Your task to perform on an android device: find which apps use the phone's location Image 0: 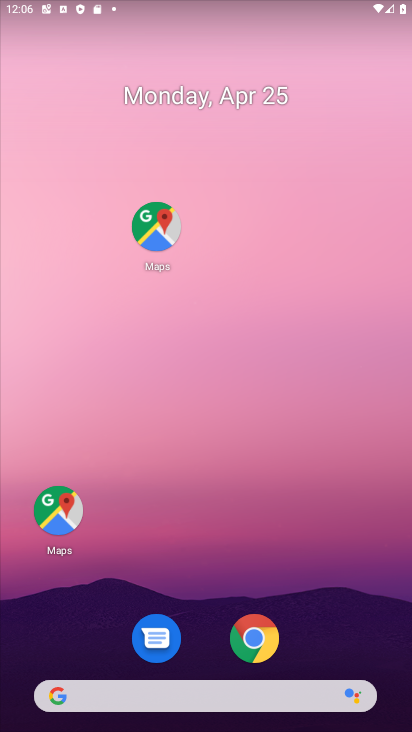
Step 0: drag from (174, 383) to (120, 2)
Your task to perform on an android device: find which apps use the phone's location Image 1: 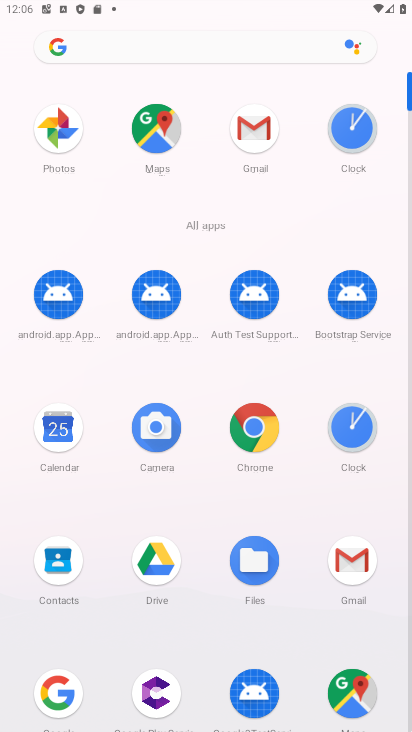
Step 1: drag from (282, 643) to (229, 106)
Your task to perform on an android device: find which apps use the phone's location Image 2: 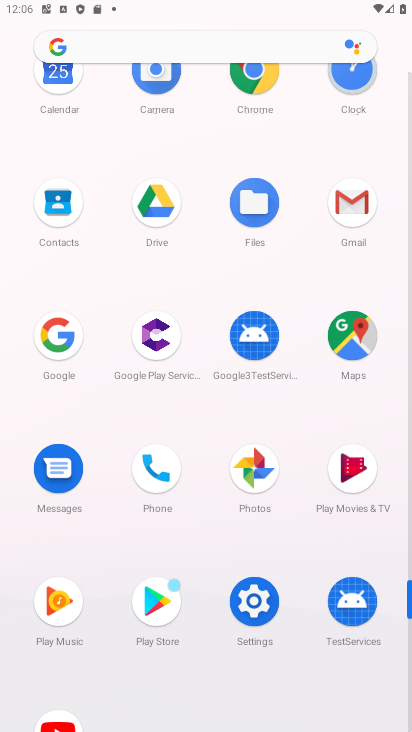
Step 2: click (50, 130)
Your task to perform on an android device: find which apps use the phone's location Image 3: 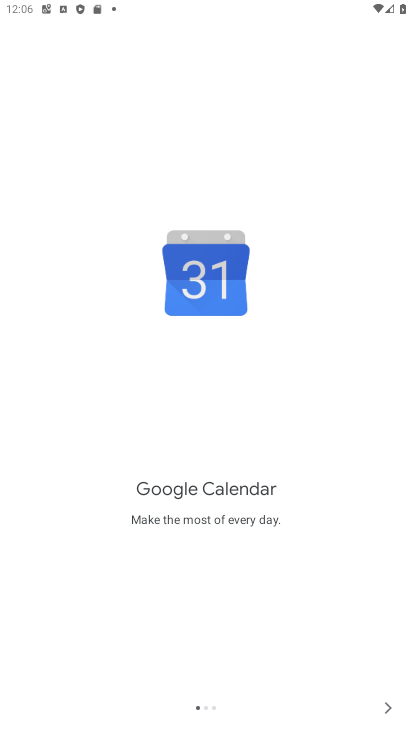
Step 3: click (391, 700)
Your task to perform on an android device: find which apps use the phone's location Image 4: 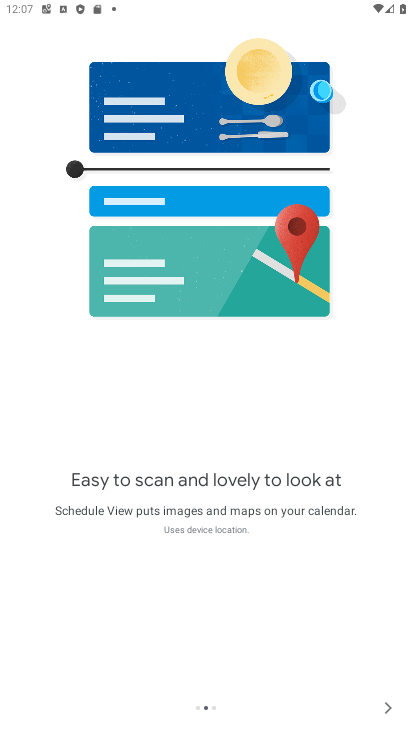
Step 4: click (381, 712)
Your task to perform on an android device: find which apps use the phone's location Image 5: 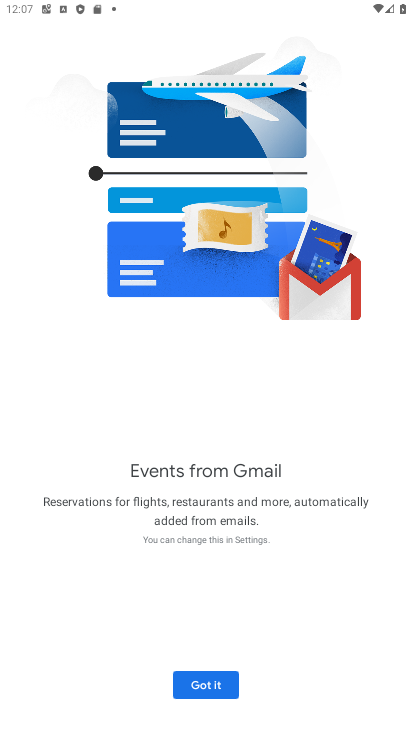
Step 5: click (382, 706)
Your task to perform on an android device: find which apps use the phone's location Image 6: 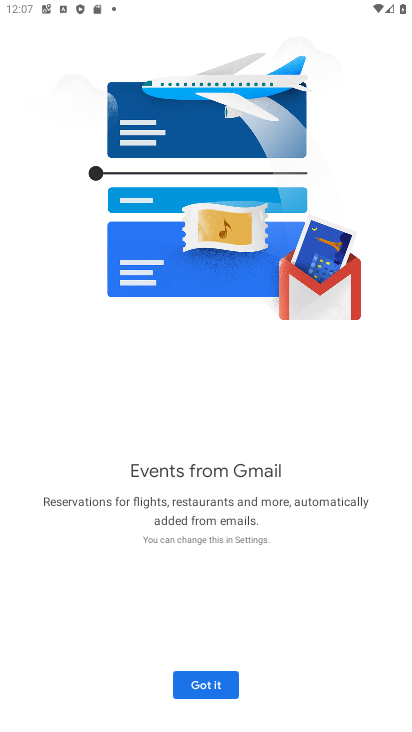
Step 6: click (382, 700)
Your task to perform on an android device: find which apps use the phone's location Image 7: 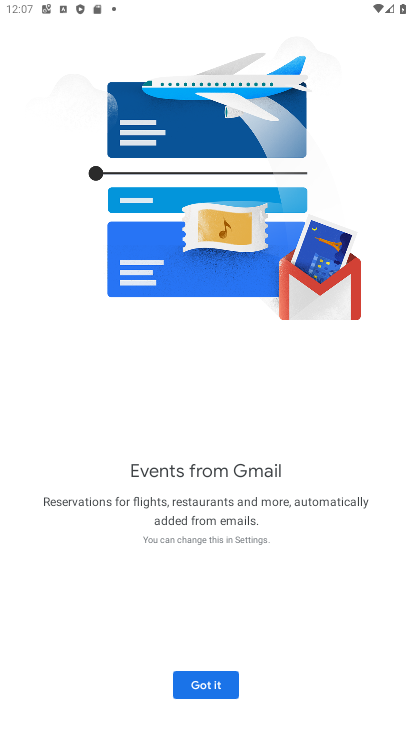
Step 7: click (203, 676)
Your task to perform on an android device: find which apps use the phone's location Image 8: 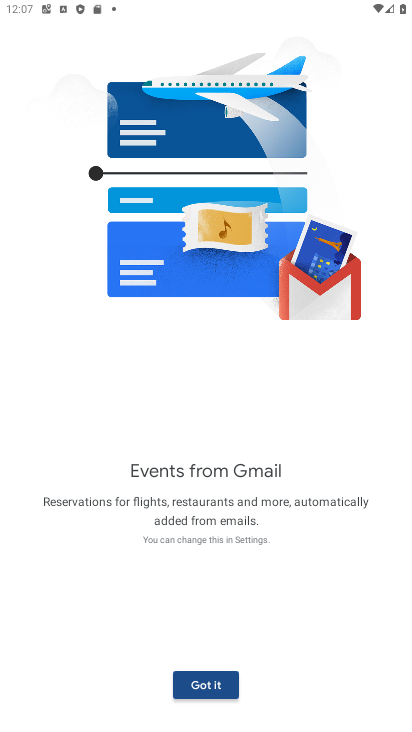
Step 8: click (201, 670)
Your task to perform on an android device: find which apps use the phone's location Image 9: 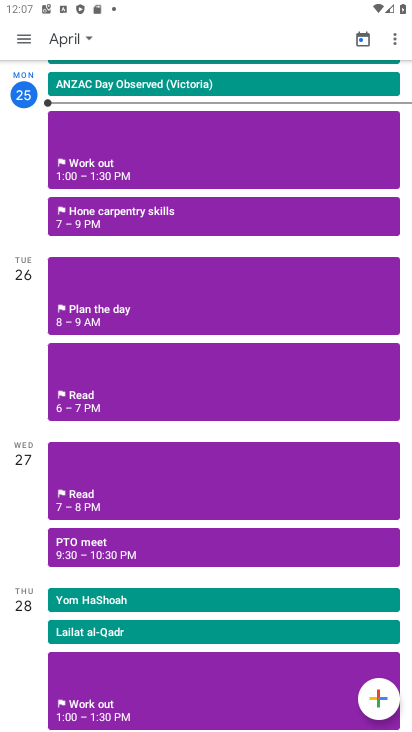
Step 9: press home button
Your task to perform on an android device: find which apps use the phone's location Image 10: 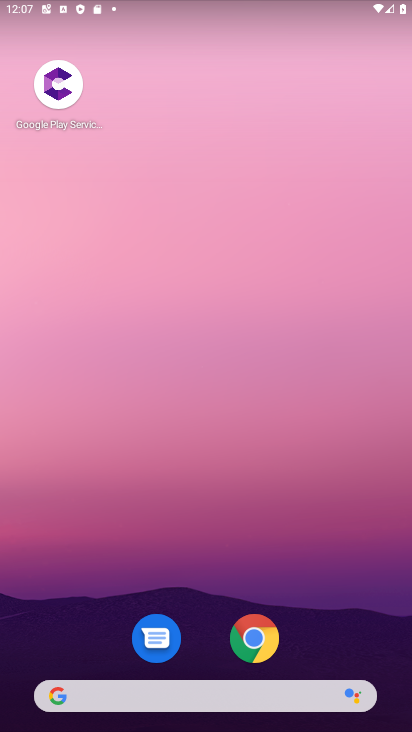
Step 10: drag from (241, 432) to (212, 323)
Your task to perform on an android device: find which apps use the phone's location Image 11: 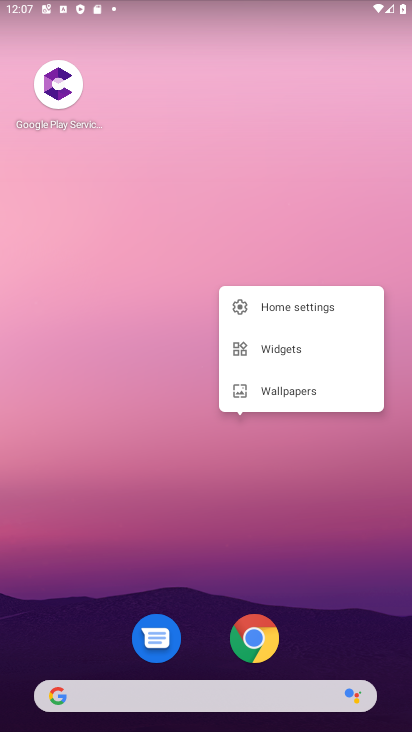
Step 11: drag from (261, 711) to (195, 104)
Your task to perform on an android device: find which apps use the phone's location Image 12: 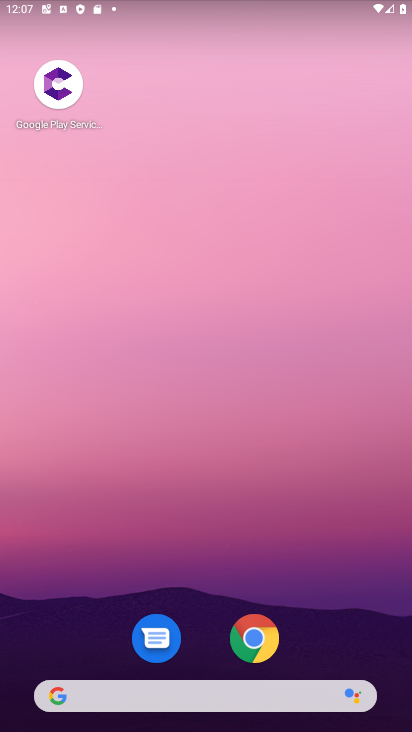
Step 12: drag from (230, 535) to (227, 6)
Your task to perform on an android device: find which apps use the phone's location Image 13: 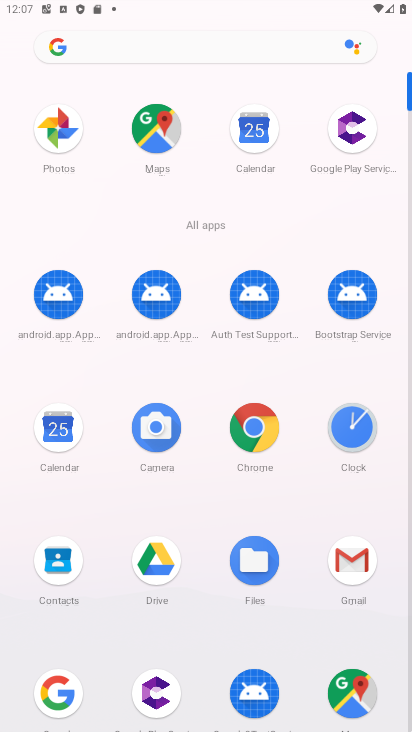
Step 13: drag from (375, 627) to (221, 23)
Your task to perform on an android device: find which apps use the phone's location Image 14: 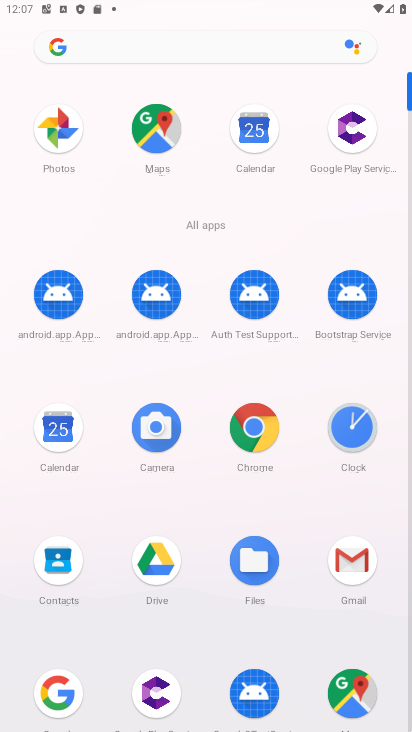
Step 14: drag from (357, 604) to (377, 546)
Your task to perform on an android device: find which apps use the phone's location Image 15: 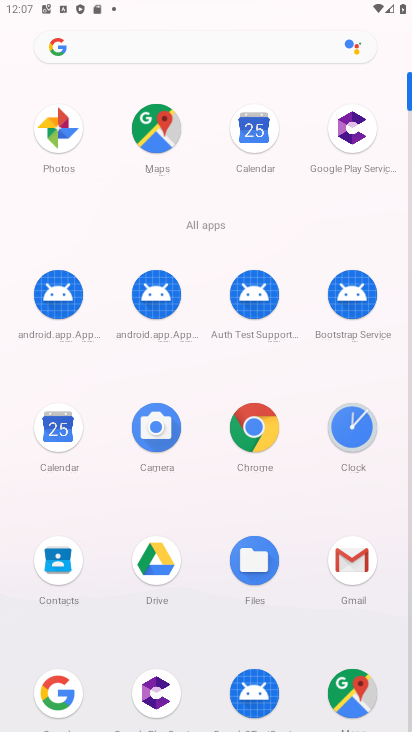
Step 15: drag from (304, 618) to (234, 146)
Your task to perform on an android device: find which apps use the phone's location Image 16: 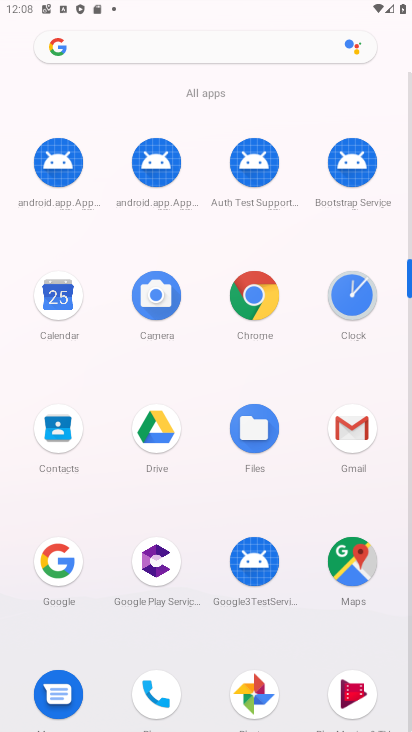
Step 16: click (206, 7)
Your task to perform on an android device: find which apps use the phone's location Image 17: 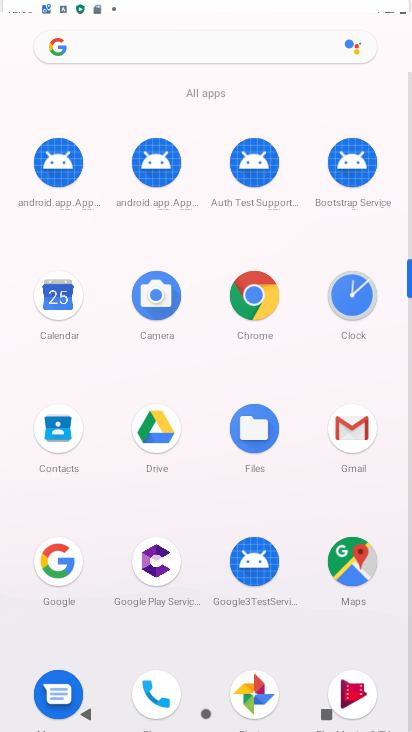
Step 17: drag from (173, 85) to (165, 15)
Your task to perform on an android device: find which apps use the phone's location Image 18: 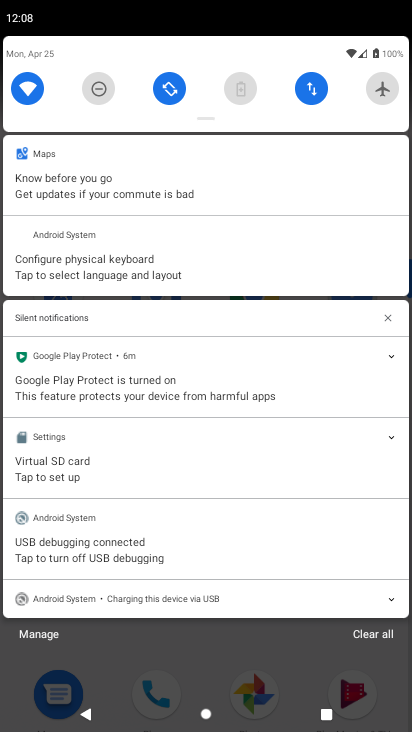
Step 18: click (136, 146)
Your task to perform on an android device: find which apps use the phone's location Image 19: 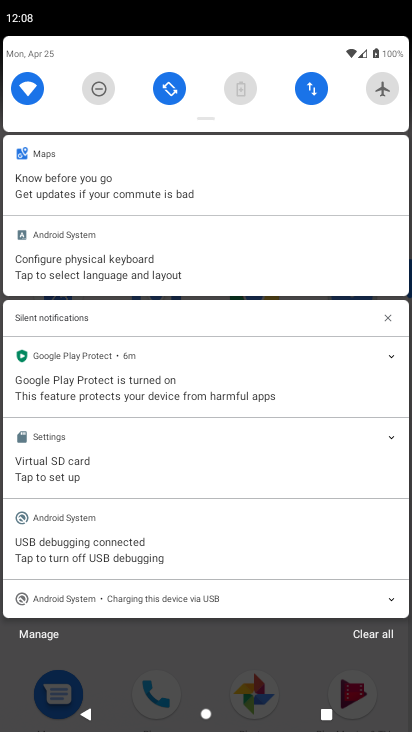
Step 19: click (232, 119)
Your task to perform on an android device: find which apps use the phone's location Image 20: 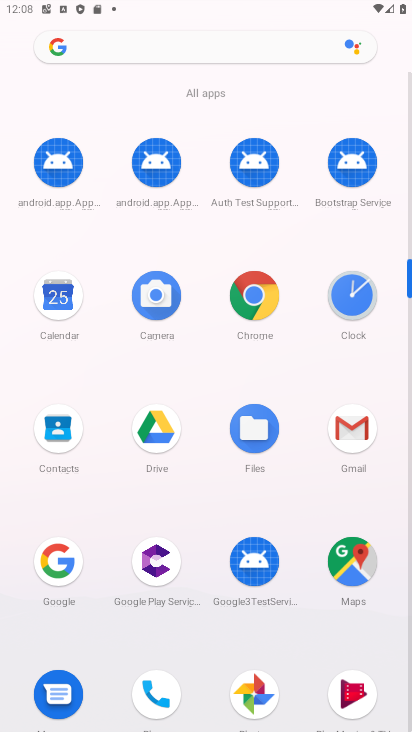
Step 20: click (132, 166)
Your task to perform on an android device: find which apps use the phone's location Image 21: 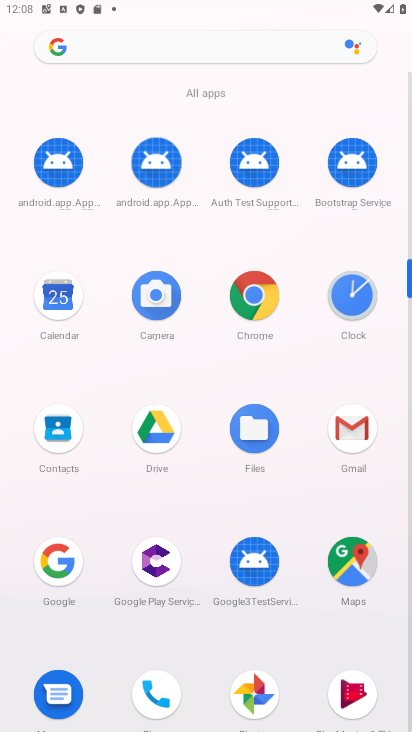
Step 21: drag from (220, 507) to (163, 3)
Your task to perform on an android device: find which apps use the phone's location Image 22: 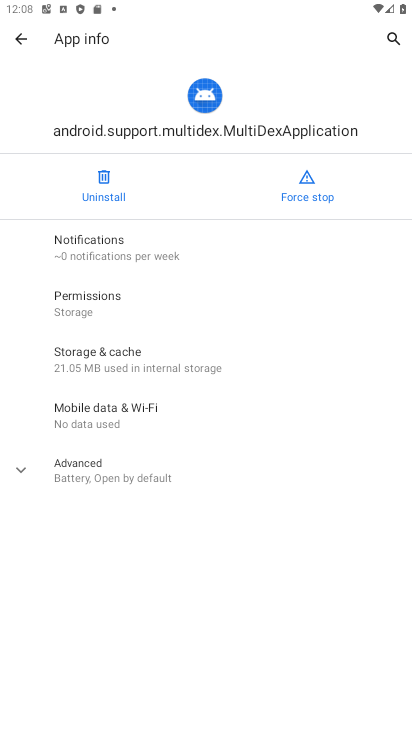
Step 22: click (229, 187)
Your task to perform on an android device: find which apps use the phone's location Image 23: 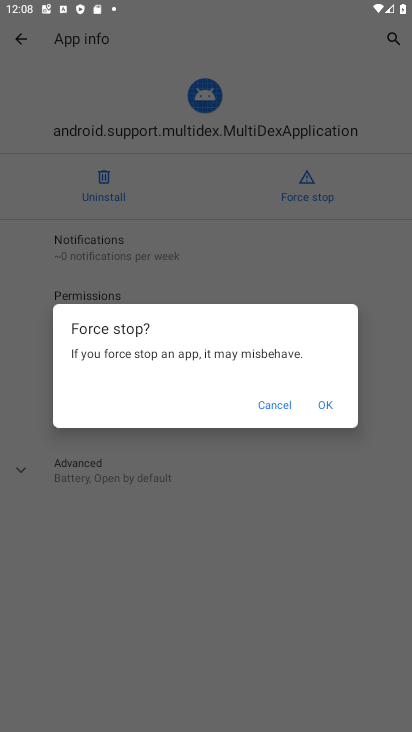
Step 23: drag from (270, 597) to (318, 248)
Your task to perform on an android device: find which apps use the phone's location Image 24: 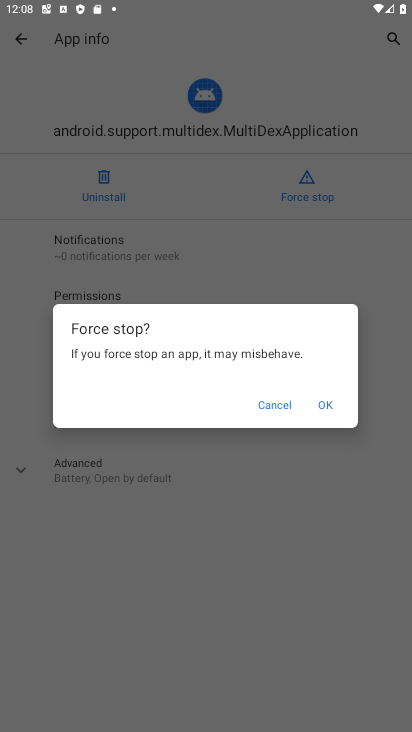
Step 24: press back button
Your task to perform on an android device: find which apps use the phone's location Image 25: 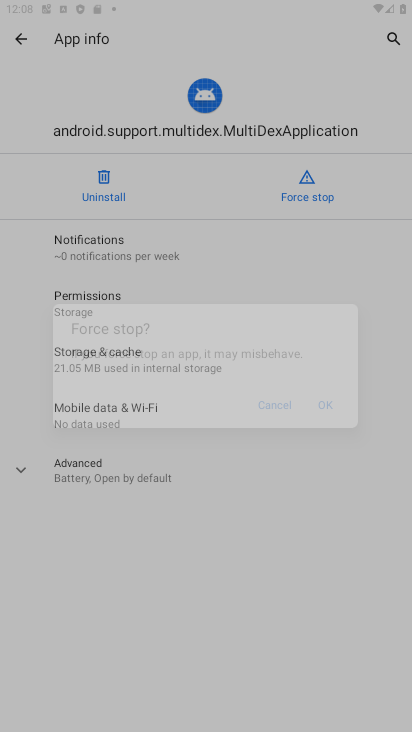
Step 25: press back button
Your task to perform on an android device: find which apps use the phone's location Image 26: 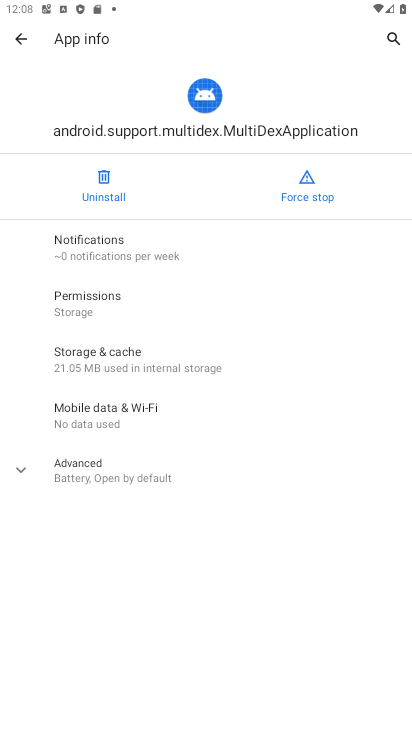
Step 26: drag from (251, 495) to (246, 60)
Your task to perform on an android device: find which apps use the phone's location Image 27: 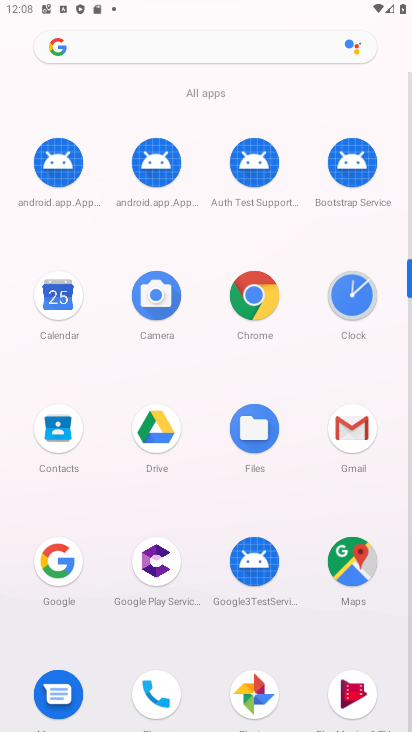
Step 27: drag from (342, 482) to (277, 44)
Your task to perform on an android device: find which apps use the phone's location Image 28: 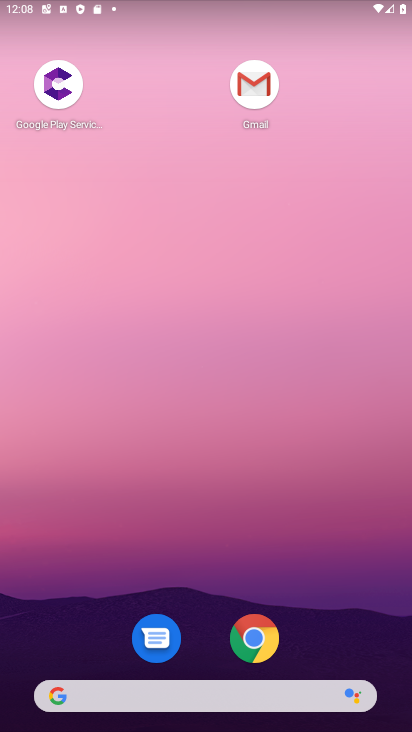
Step 28: click (15, 36)
Your task to perform on an android device: find which apps use the phone's location Image 29: 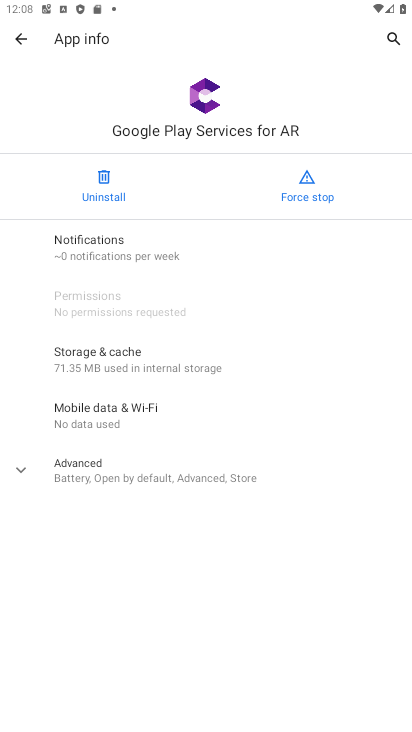
Step 29: drag from (207, 641) to (138, 236)
Your task to perform on an android device: find which apps use the phone's location Image 30: 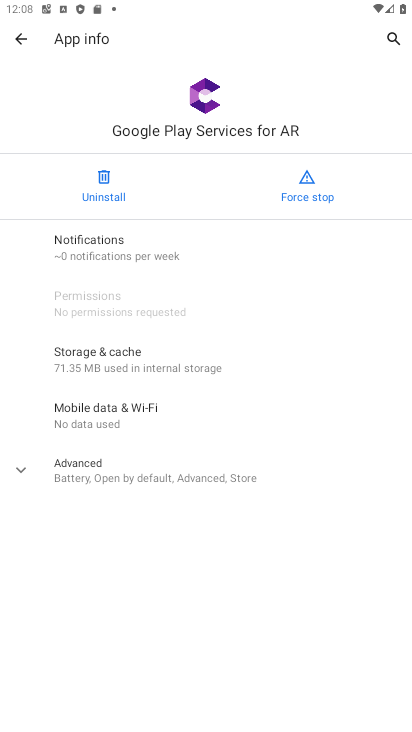
Step 30: click (115, 149)
Your task to perform on an android device: find which apps use the phone's location Image 31: 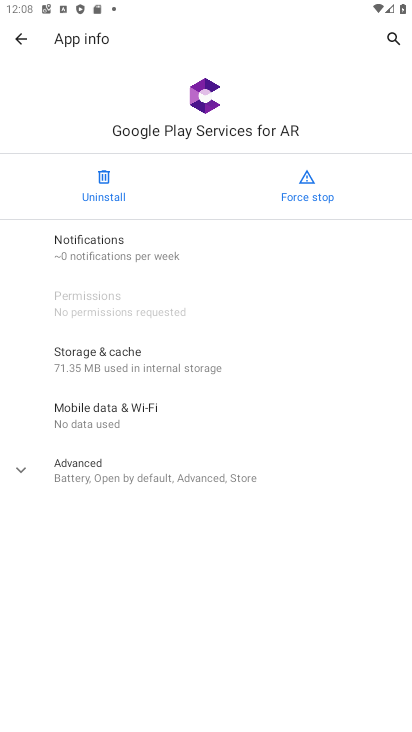
Step 31: click (179, 30)
Your task to perform on an android device: find which apps use the phone's location Image 32: 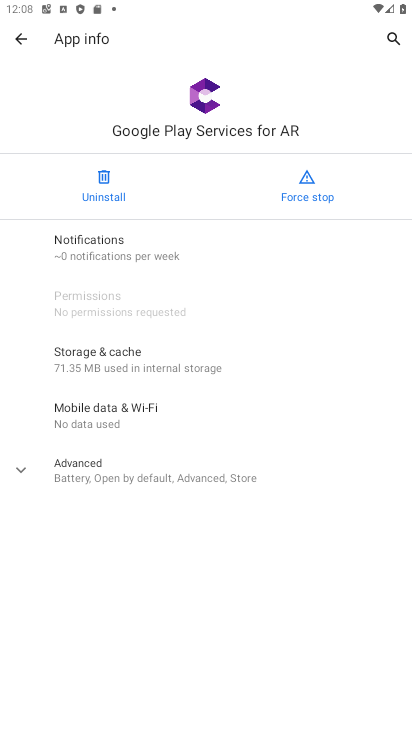
Step 32: drag from (255, 671) to (226, 176)
Your task to perform on an android device: find which apps use the phone's location Image 33: 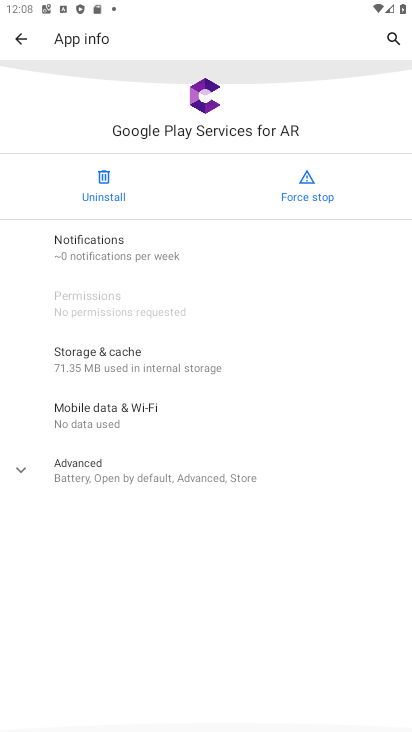
Step 33: click (23, 42)
Your task to perform on an android device: find which apps use the phone's location Image 34: 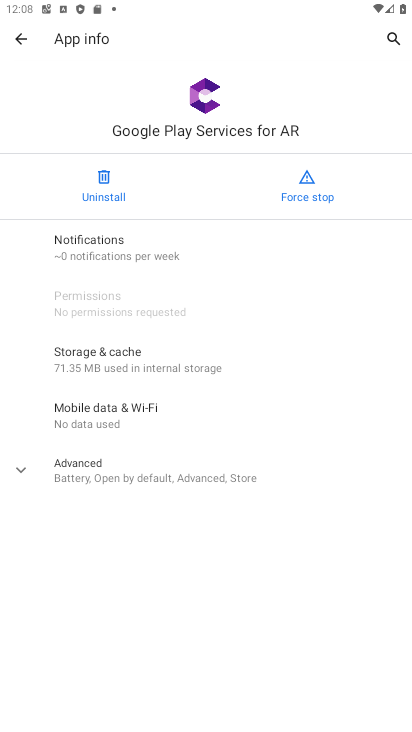
Step 34: click (19, 27)
Your task to perform on an android device: find which apps use the phone's location Image 35: 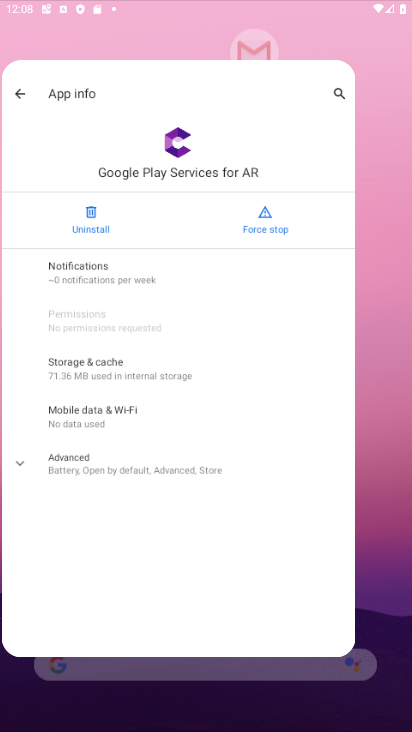
Step 35: drag from (235, 705) to (250, 188)
Your task to perform on an android device: find which apps use the phone's location Image 36: 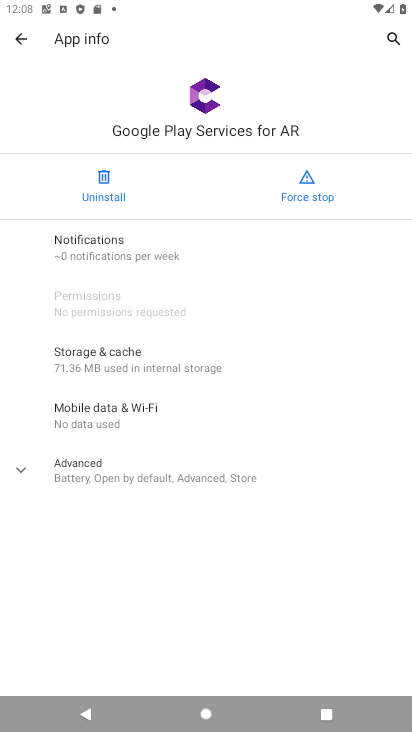
Step 36: click (28, 33)
Your task to perform on an android device: find which apps use the phone's location Image 37: 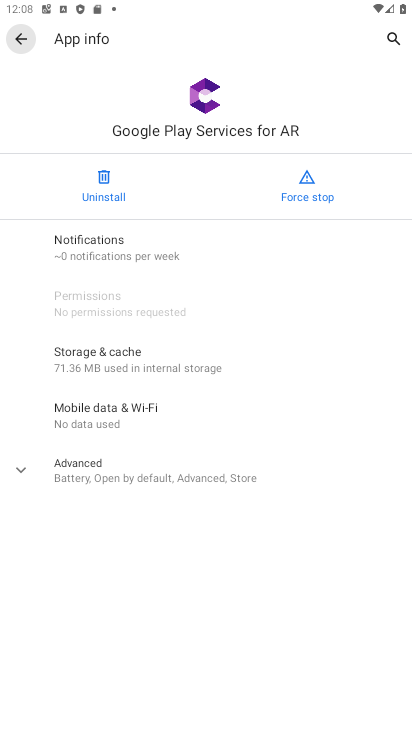
Step 37: click (24, 36)
Your task to perform on an android device: find which apps use the phone's location Image 38: 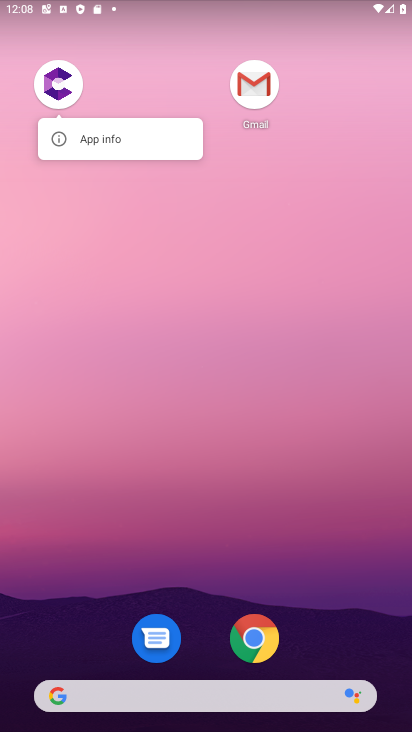
Step 38: drag from (218, 672) to (163, 178)
Your task to perform on an android device: find which apps use the phone's location Image 39: 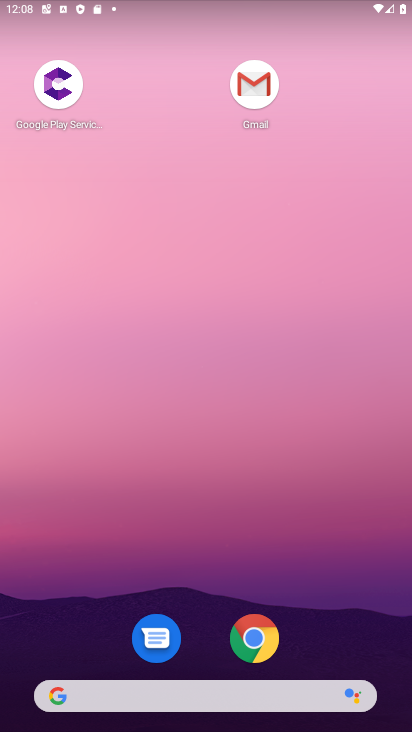
Step 39: drag from (213, 616) to (168, 125)
Your task to perform on an android device: find which apps use the phone's location Image 40: 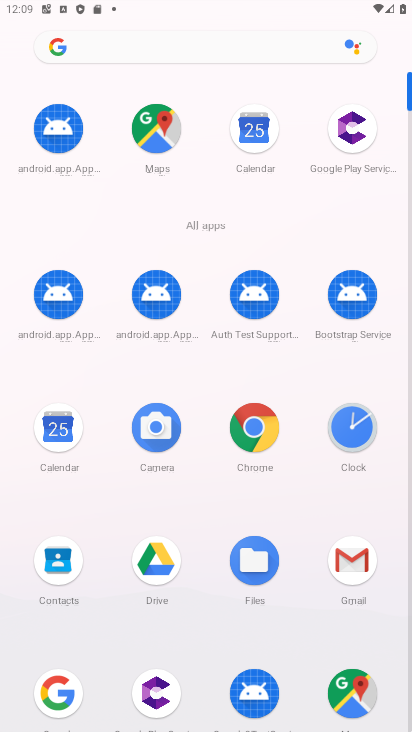
Step 40: drag from (289, 441) to (296, 140)
Your task to perform on an android device: find which apps use the phone's location Image 41: 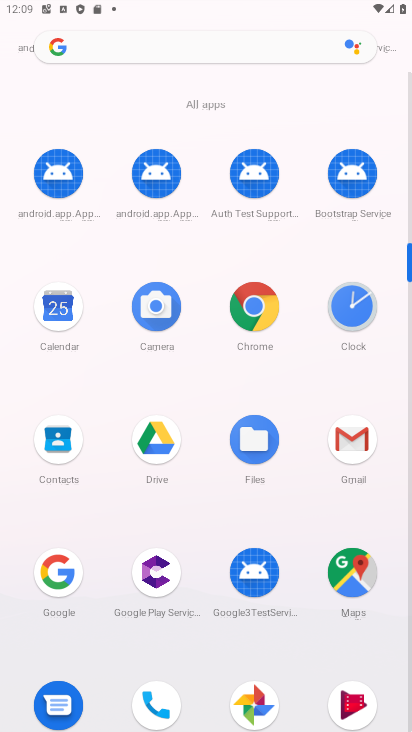
Step 41: drag from (303, 318) to (285, 92)
Your task to perform on an android device: find which apps use the phone's location Image 42: 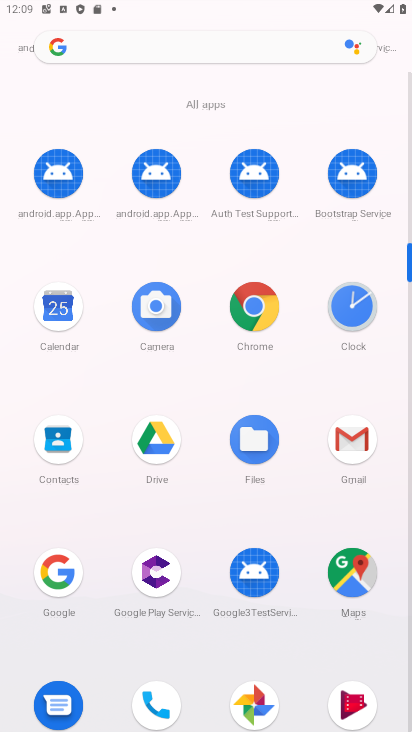
Step 42: drag from (280, 173) to (272, 61)
Your task to perform on an android device: find which apps use the phone's location Image 43: 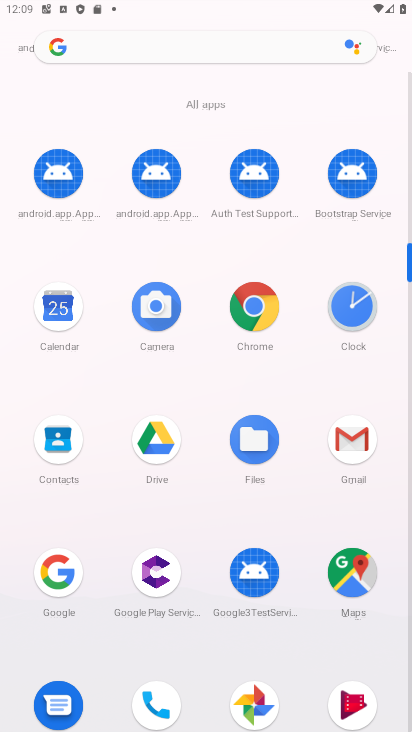
Step 43: drag from (205, 588) to (158, 183)
Your task to perform on an android device: find which apps use the phone's location Image 44: 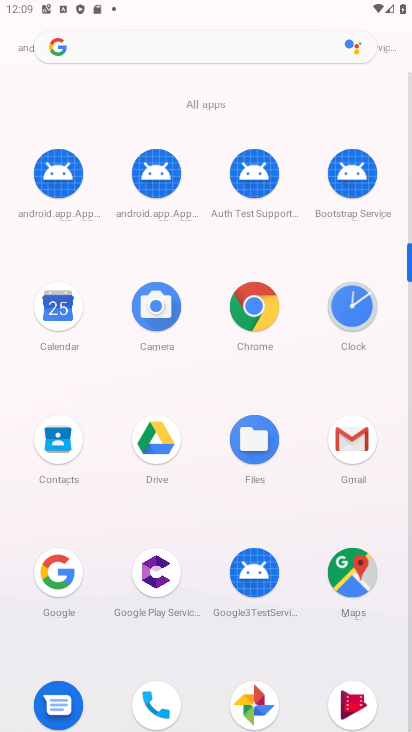
Step 44: drag from (180, 647) to (260, 44)
Your task to perform on an android device: find which apps use the phone's location Image 45: 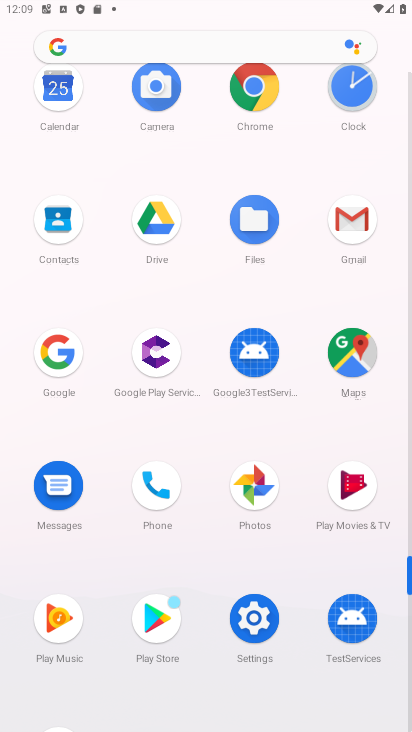
Step 45: drag from (229, 522) to (271, 9)
Your task to perform on an android device: find which apps use the phone's location Image 46: 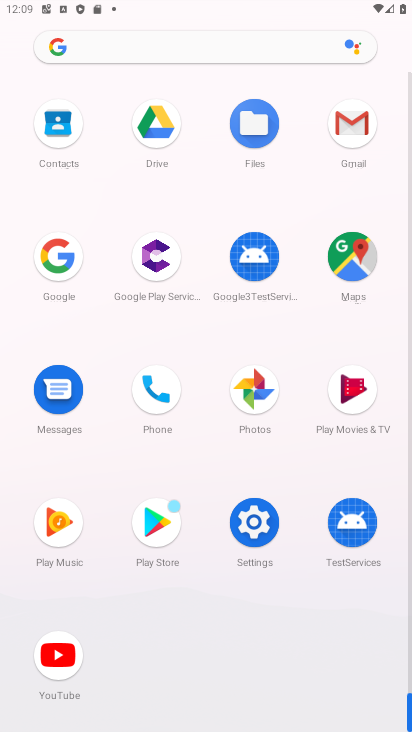
Step 46: click (256, 564)
Your task to perform on an android device: find which apps use the phone's location Image 47: 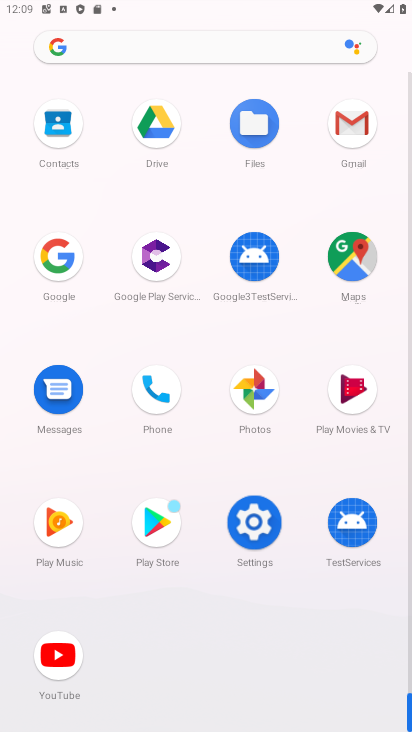
Step 47: click (261, 546)
Your task to perform on an android device: find which apps use the phone's location Image 48: 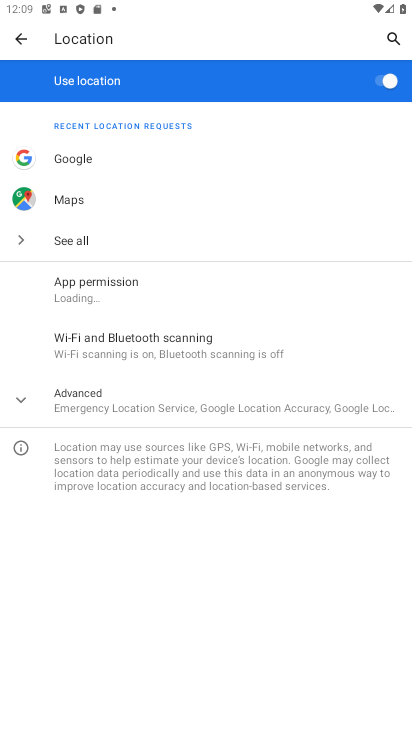
Step 48: click (76, 286)
Your task to perform on an android device: find which apps use the phone's location Image 49: 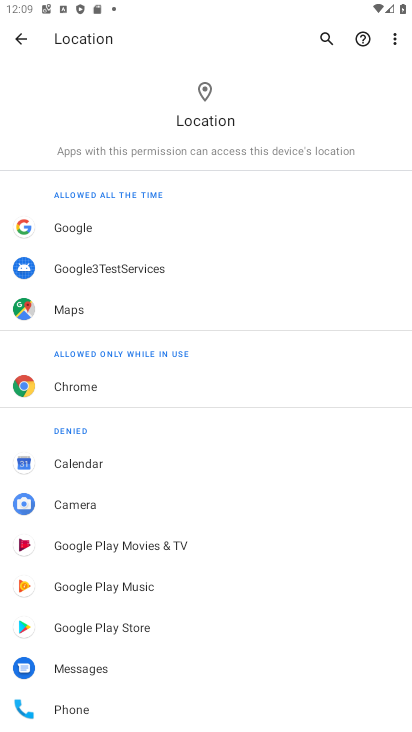
Step 49: task complete